Your task to perform on an android device: Open wifi settings Image 0: 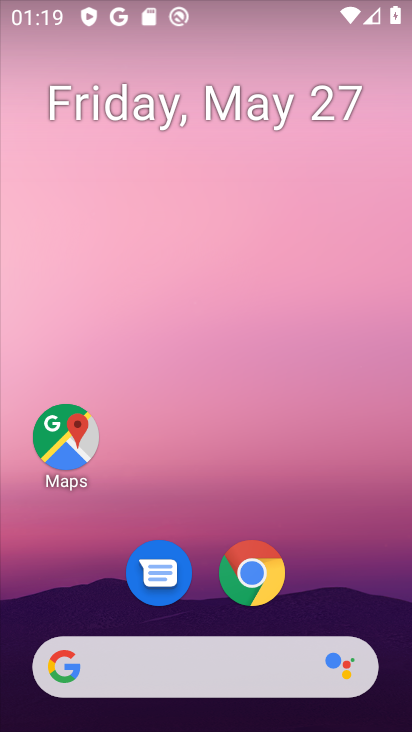
Step 0: drag from (222, 636) to (330, 21)
Your task to perform on an android device: Open wifi settings Image 1: 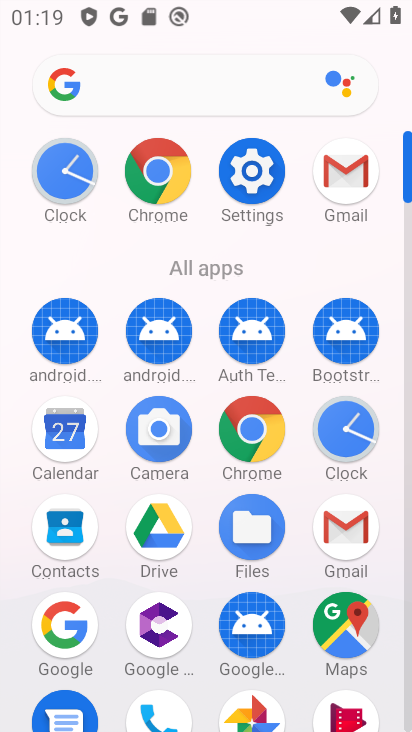
Step 1: click (246, 193)
Your task to perform on an android device: Open wifi settings Image 2: 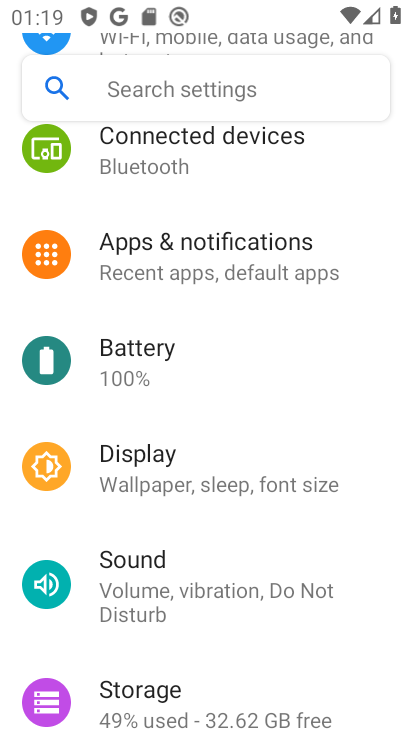
Step 2: drag from (246, 192) to (244, 427)
Your task to perform on an android device: Open wifi settings Image 3: 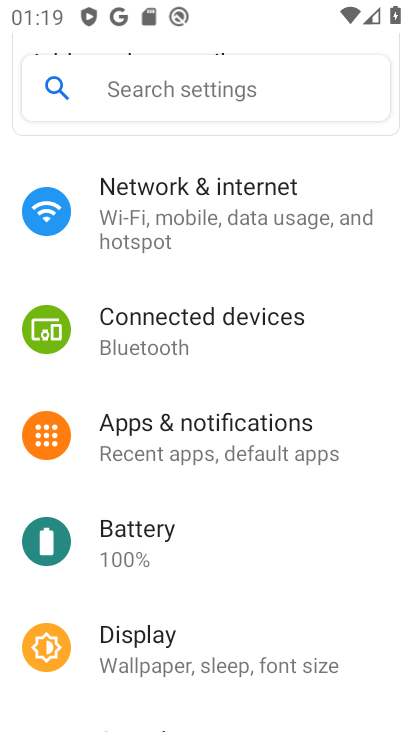
Step 3: click (189, 188)
Your task to perform on an android device: Open wifi settings Image 4: 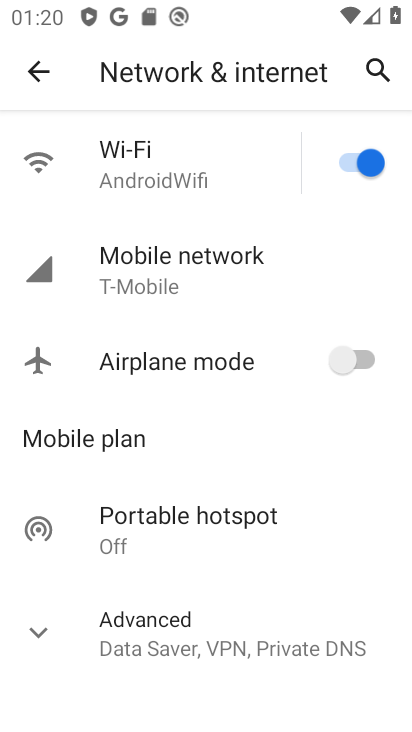
Step 4: click (139, 160)
Your task to perform on an android device: Open wifi settings Image 5: 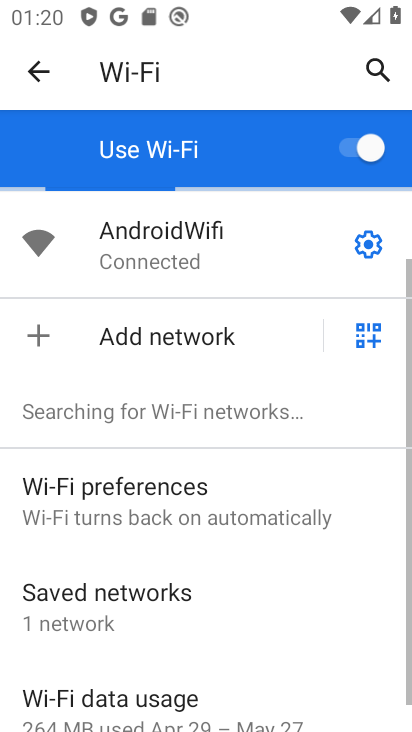
Step 5: task complete